Your task to perform on an android device: Open Google Chrome and open the bookmarks view Image 0: 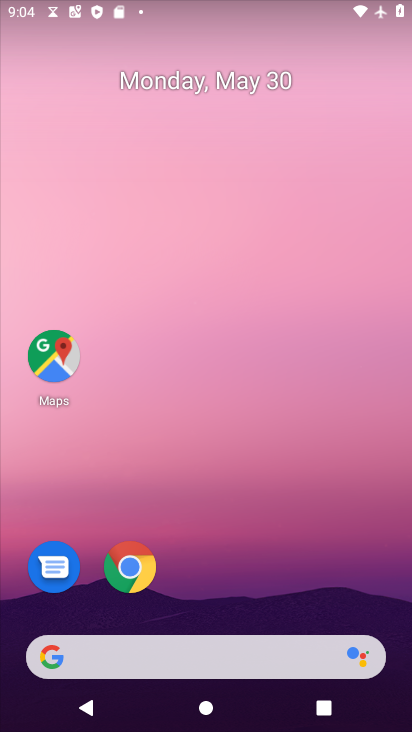
Step 0: drag from (195, 18) to (314, 347)
Your task to perform on an android device: Open Google Chrome and open the bookmarks view Image 1: 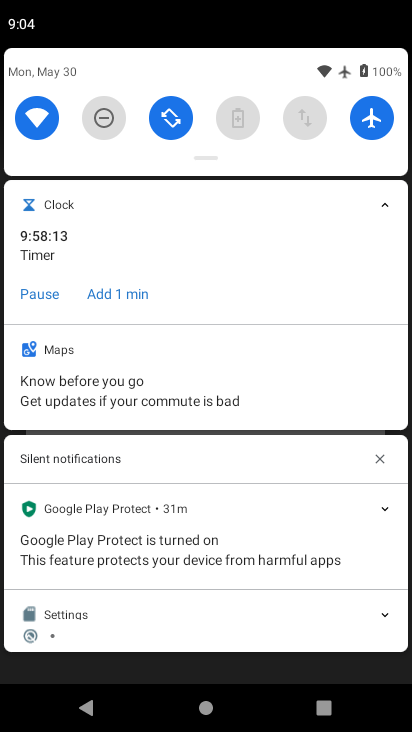
Step 1: press home button
Your task to perform on an android device: Open Google Chrome and open the bookmarks view Image 2: 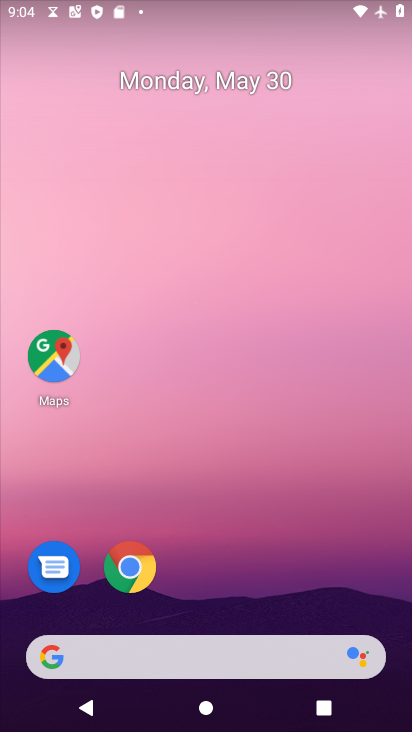
Step 2: click (148, 574)
Your task to perform on an android device: Open Google Chrome and open the bookmarks view Image 3: 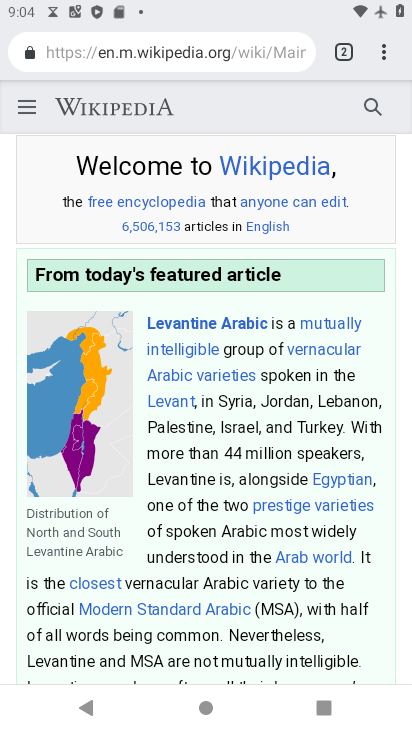
Step 3: click (378, 55)
Your task to perform on an android device: Open Google Chrome and open the bookmarks view Image 4: 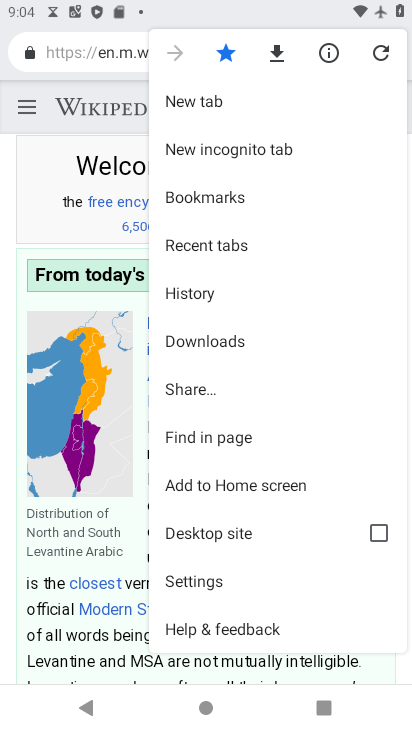
Step 4: click (282, 203)
Your task to perform on an android device: Open Google Chrome and open the bookmarks view Image 5: 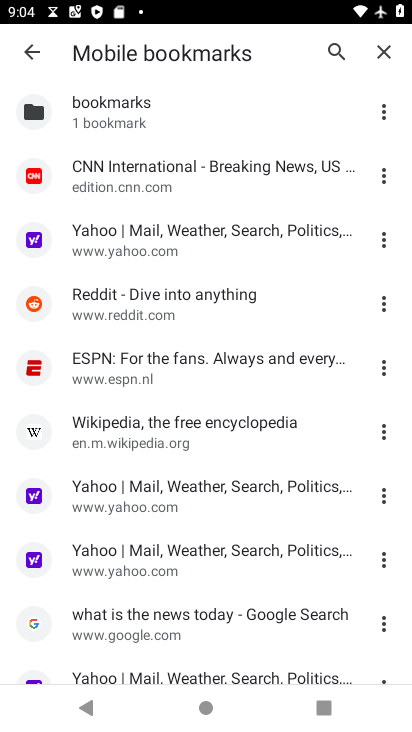
Step 5: task complete